Your task to perform on an android device: Go to notification settings Image 0: 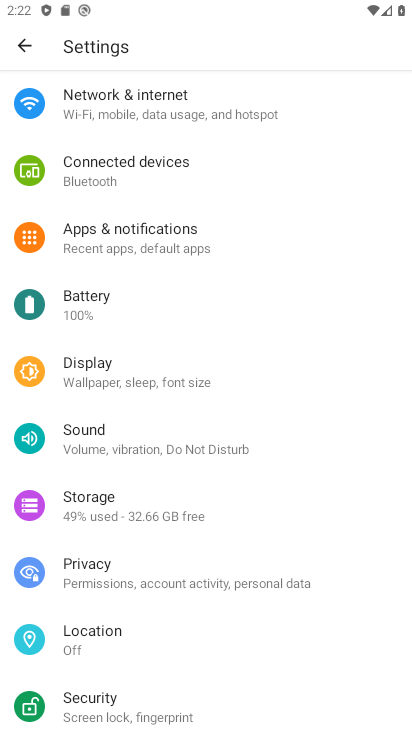
Step 0: click (197, 241)
Your task to perform on an android device: Go to notification settings Image 1: 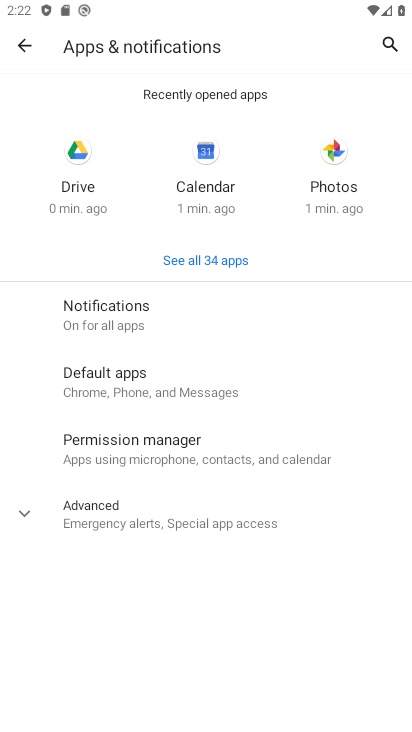
Step 1: click (224, 308)
Your task to perform on an android device: Go to notification settings Image 2: 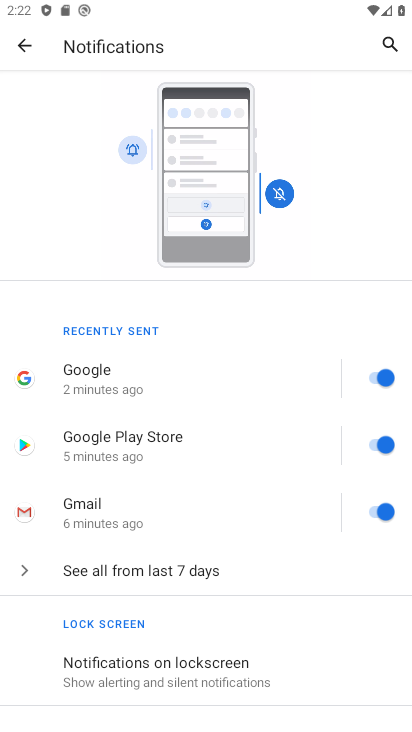
Step 2: task complete